Your task to perform on an android device: Open the map Image 0: 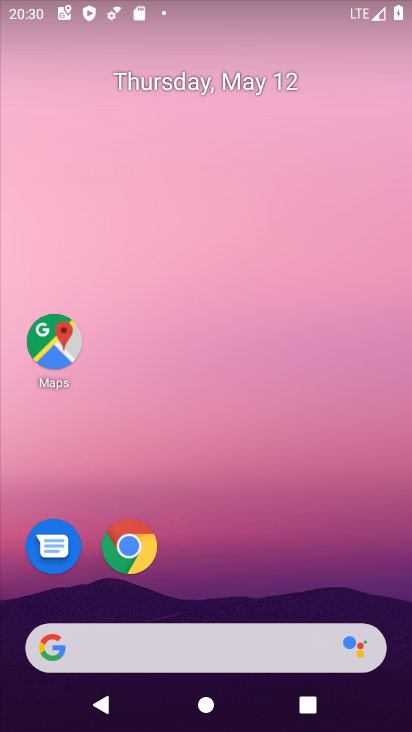
Step 0: click (60, 336)
Your task to perform on an android device: Open the map Image 1: 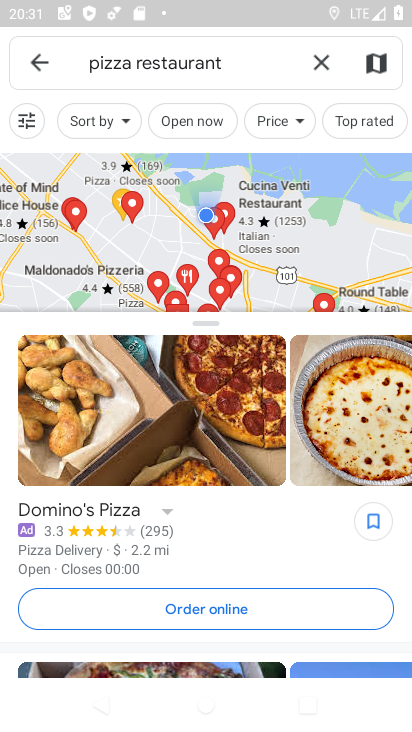
Step 1: task complete